Your task to perform on an android device: Go to Reddit.com Image 0: 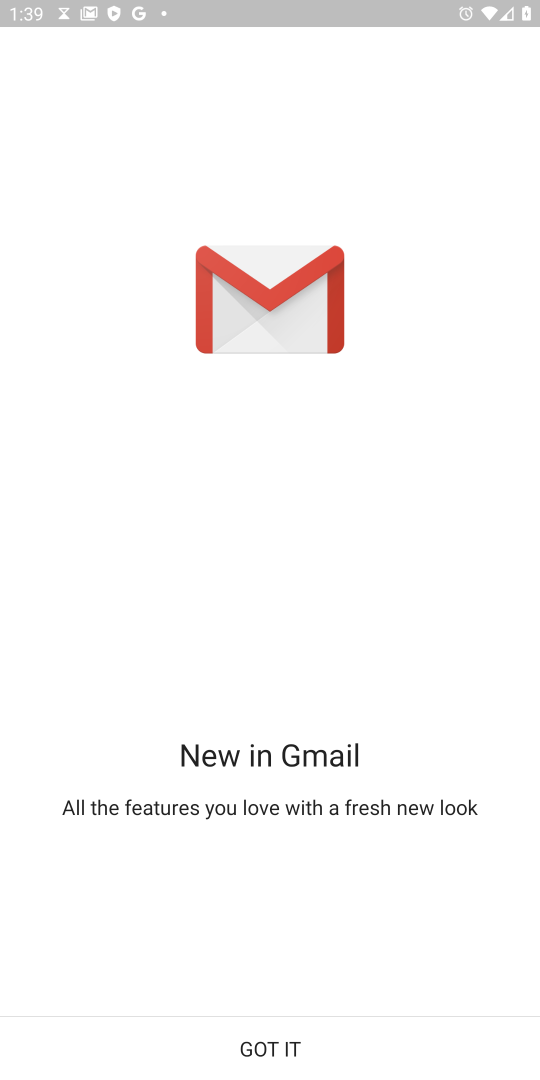
Step 0: click (181, 1064)
Your task to perform on an android device: Go to Reddit.com Image 1: 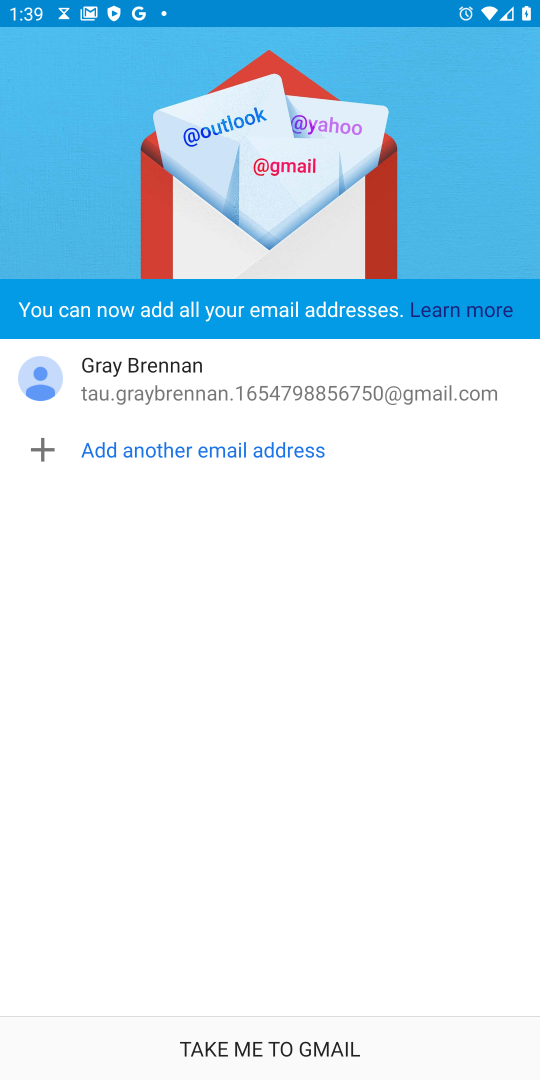
Step 1: click (289, 1034)
Your task to perform on an android device: Go to Reddit.com Image 2: 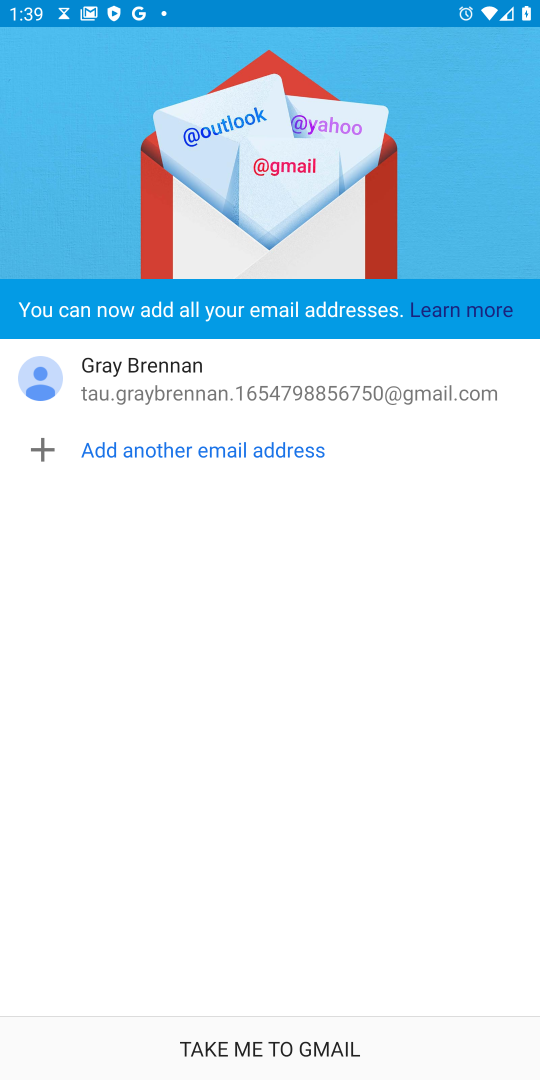
Step 2: click (289, 1034)
Your task to perform on an android device: Go to Reddit.com Image 3: 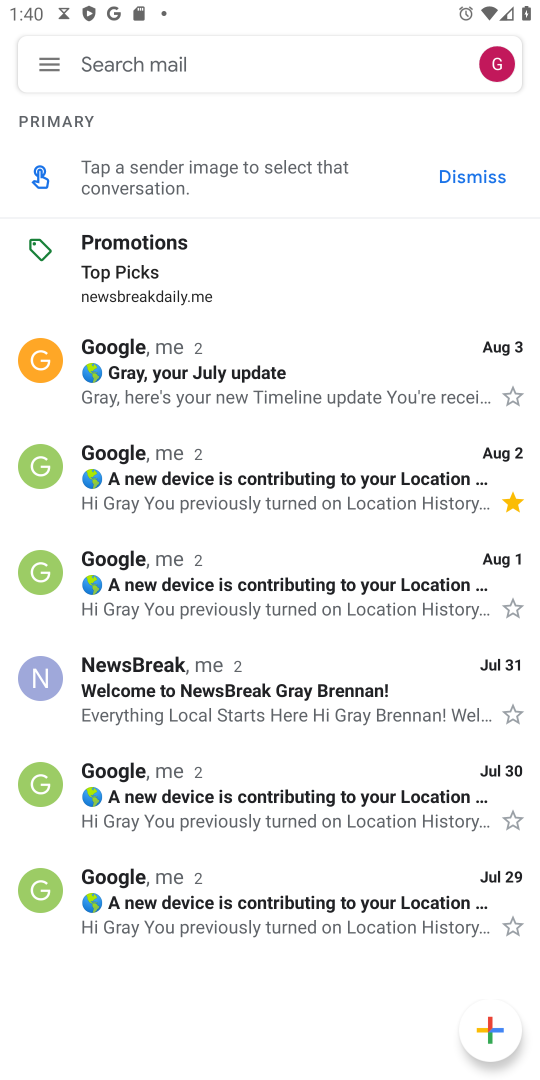
Step 3: press home button
Your task to perform on an android device: Go to Reddit.com Image 4: 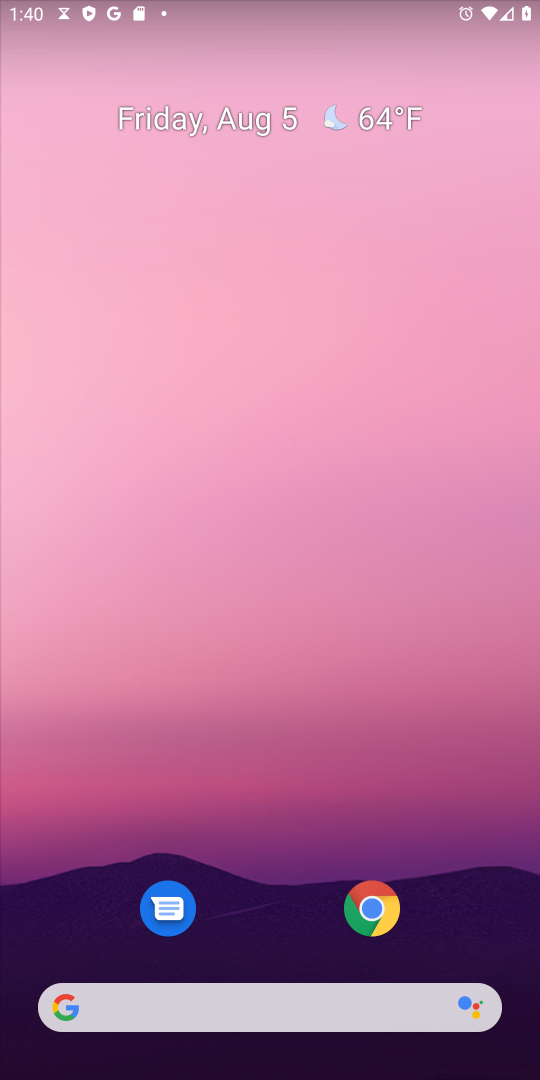
Step 4: drag from (225, 1053) to (361, 826)
Your task to perform on an android device: Go to Reddit.com Image 5: 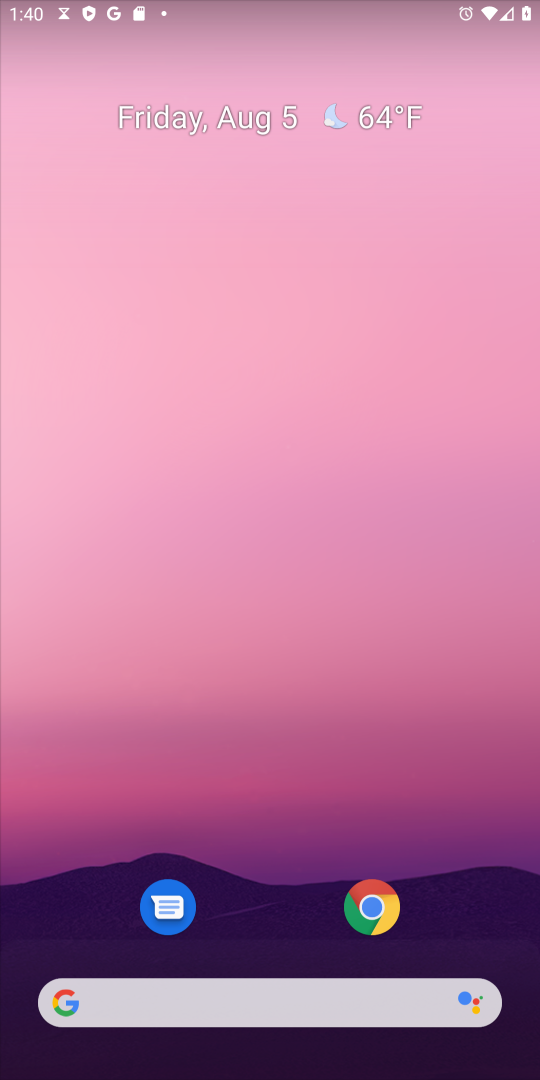
Step 5: click (359, 887)
Your task to perform on an android device: Go to Reddit.com Image 6: 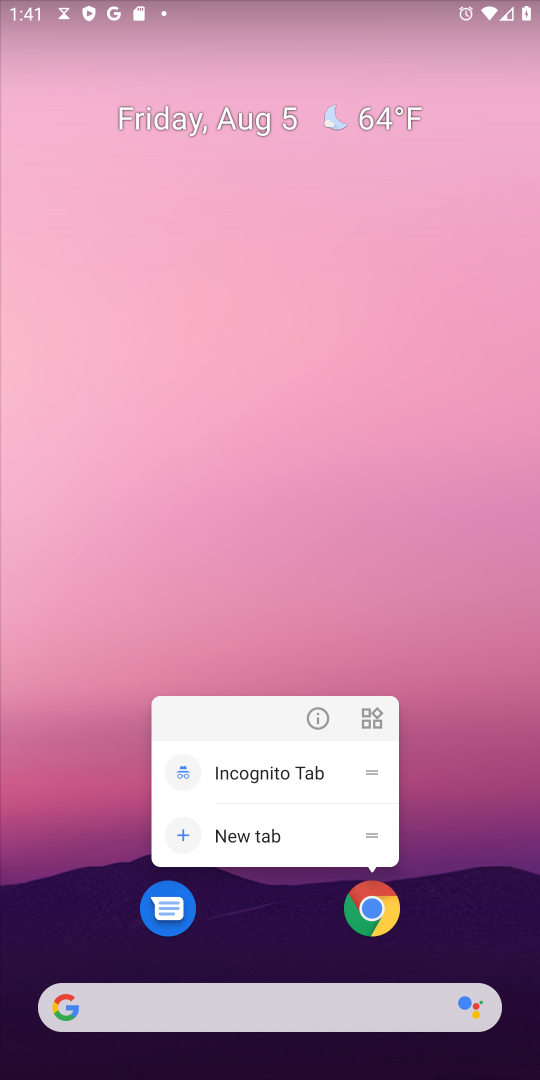
Step 6: click (300, 926)
Your task to perform on an android device: Go to Reddit.com Image 7: 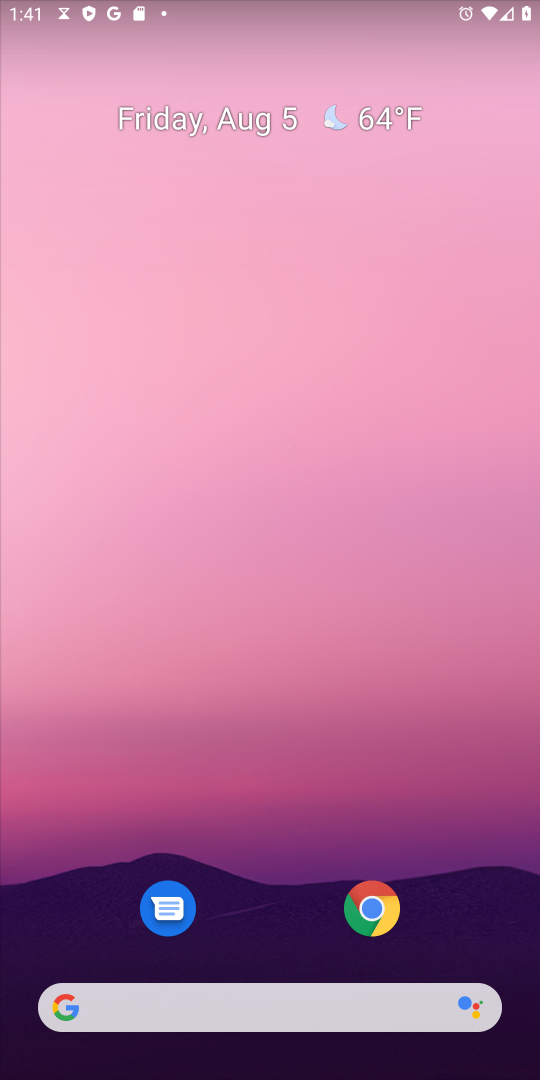
Step 7: drag from (306, 944) to (405, 323)
Your task to perform on an android device: Go to Reddit.com Image 8: 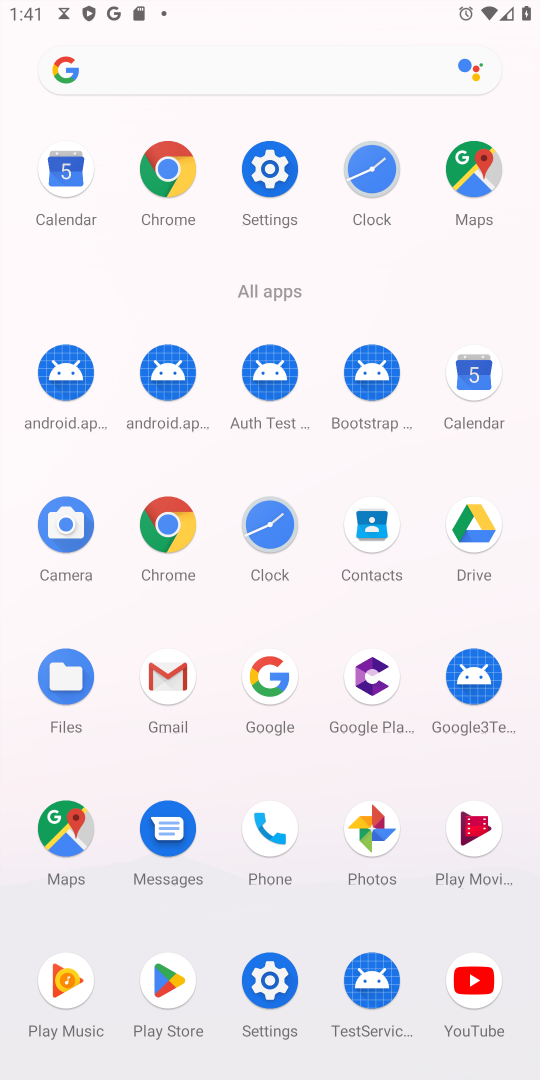
Step 8: click (200, 526)
Your task to perform on an android device: Go to Reddit.com Image 9: 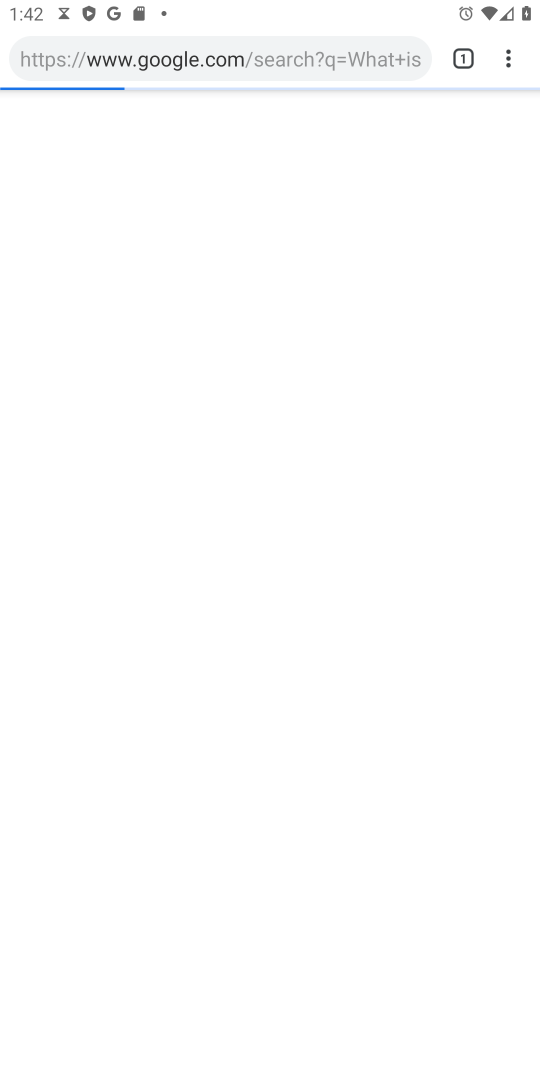
Step 9: click (248, 52)
Your task to perform on an android device: Go to Reddit.com Image 10: 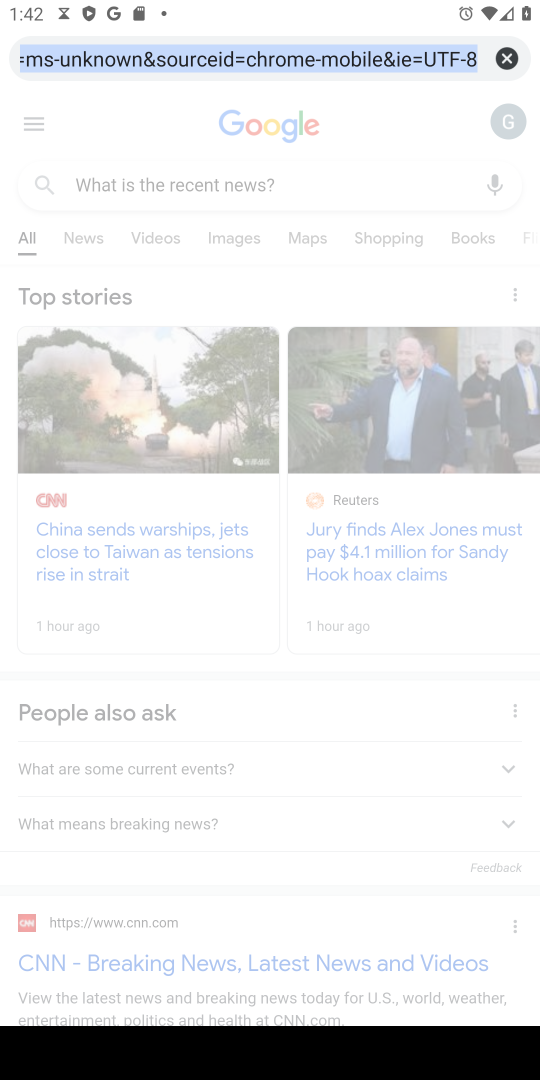
Step 10: type "Reddit.com"
Your task to perform on an android device: Go to Reddit.com Image 11: 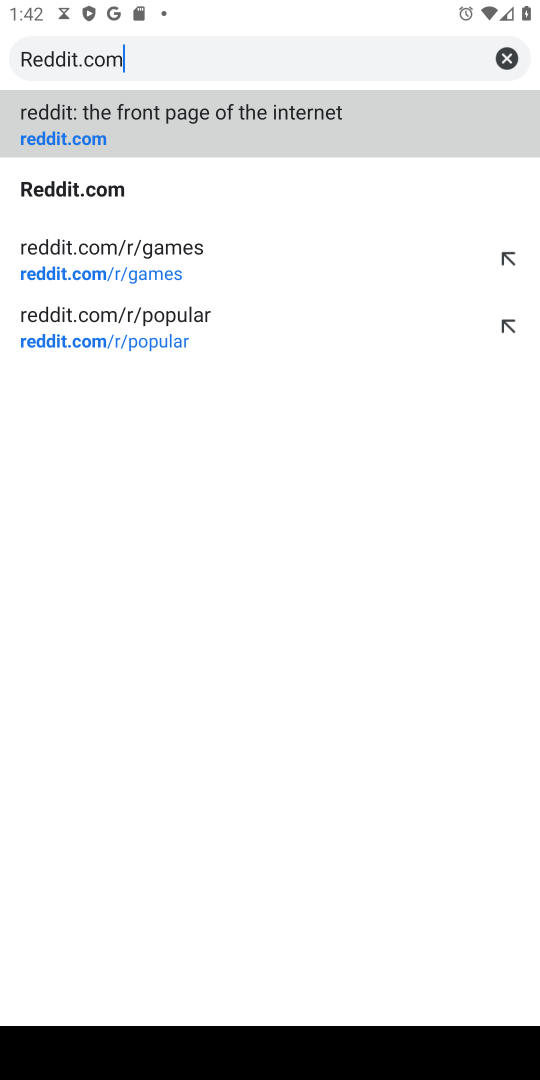
Step 11: click (333, 123)
Your task to perform on an android device: Go to Reddit.com Image 12: 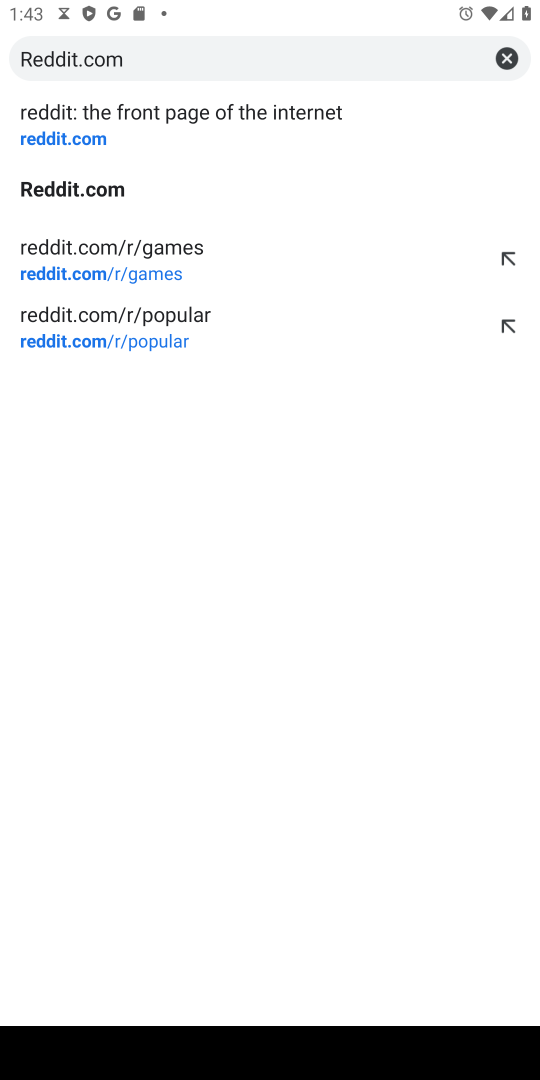
Step 12: click (261, 143)
Your task to perform on an android device: Go to Reddit.com Image 13: 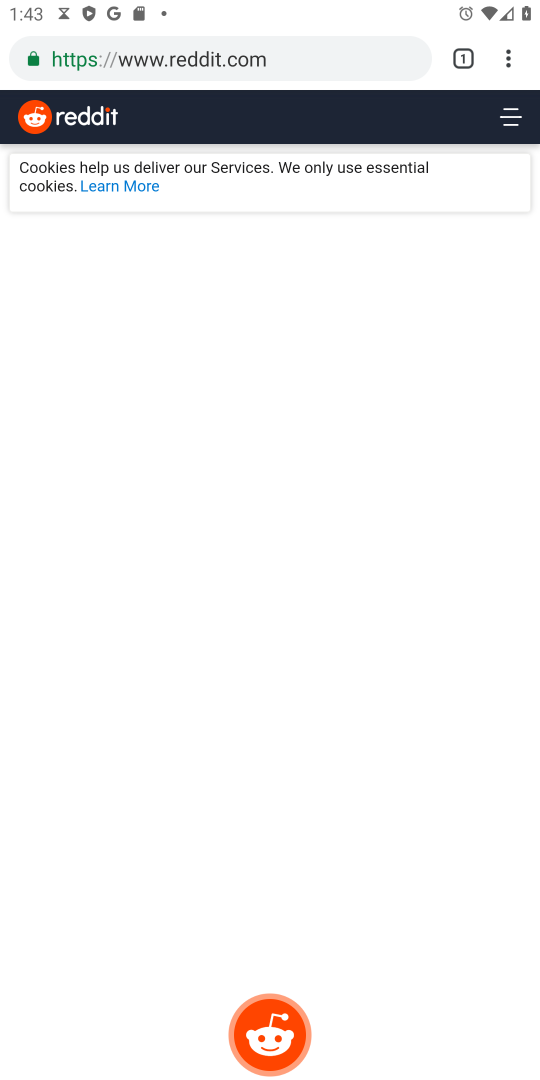
Step 13: task complete